Your task to perform on an android device: open app "Google Drive" (install if not already installed) Image 0: 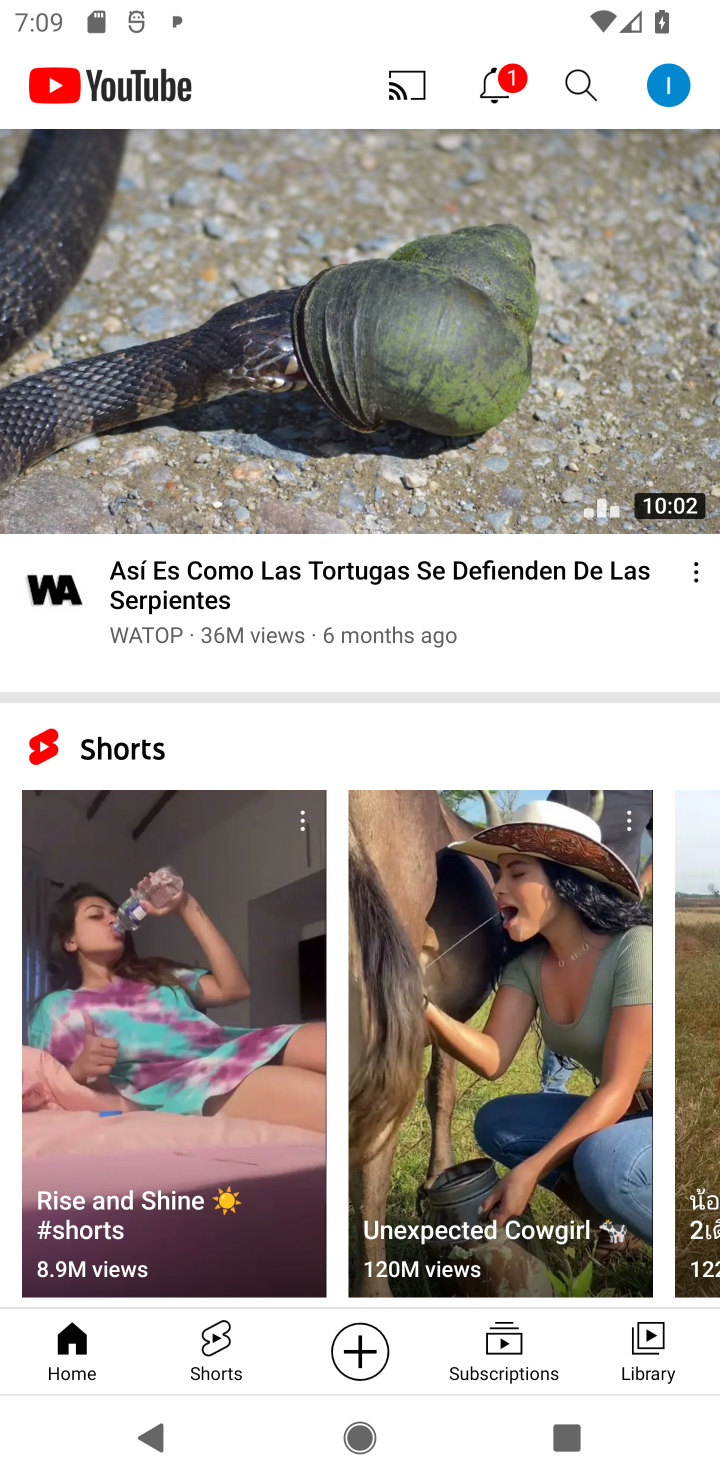
Step 0: press home button
Your task to perform on an android device: open app "Google Drive" (install if not already installed) Image 1: 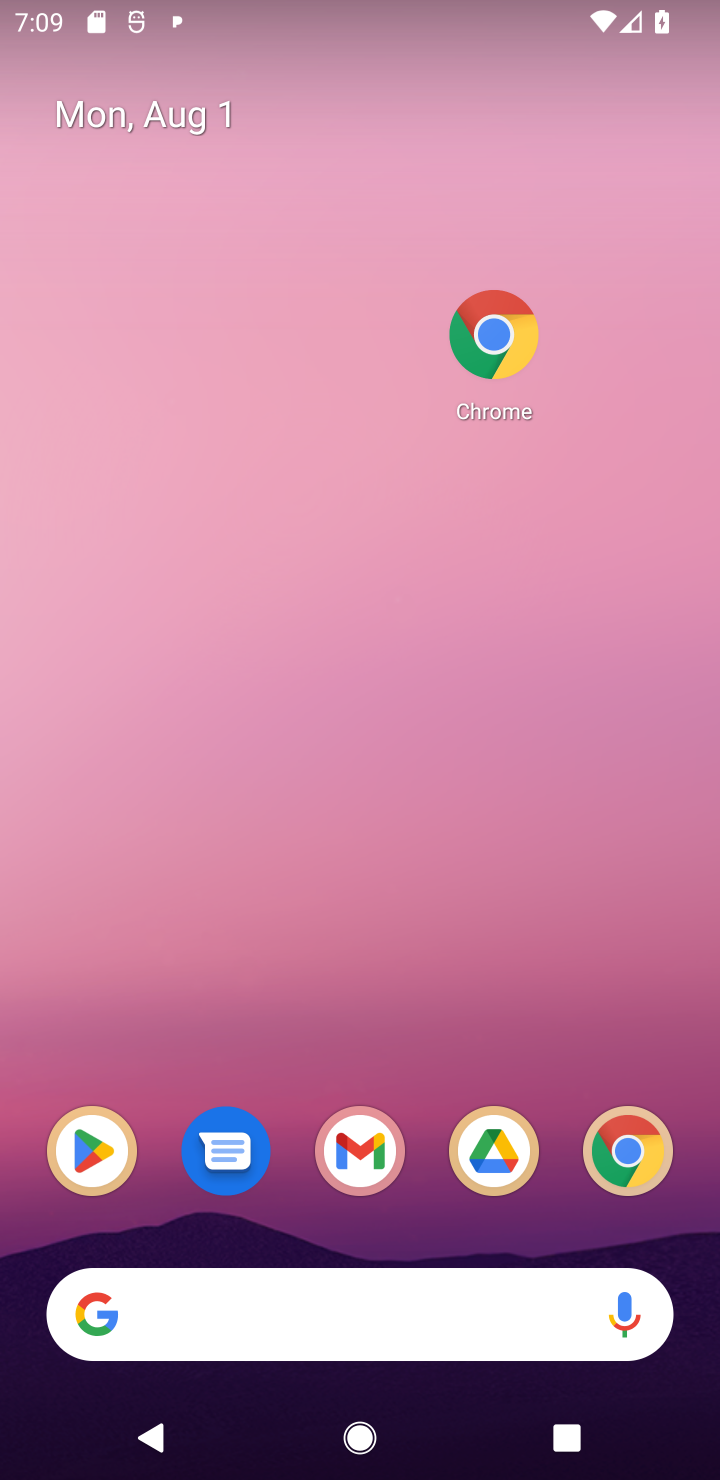
Step 1: click (375, 1215)
Your task to perform on an android device: open app "Google Drive" (install if not already installed) Image 2: 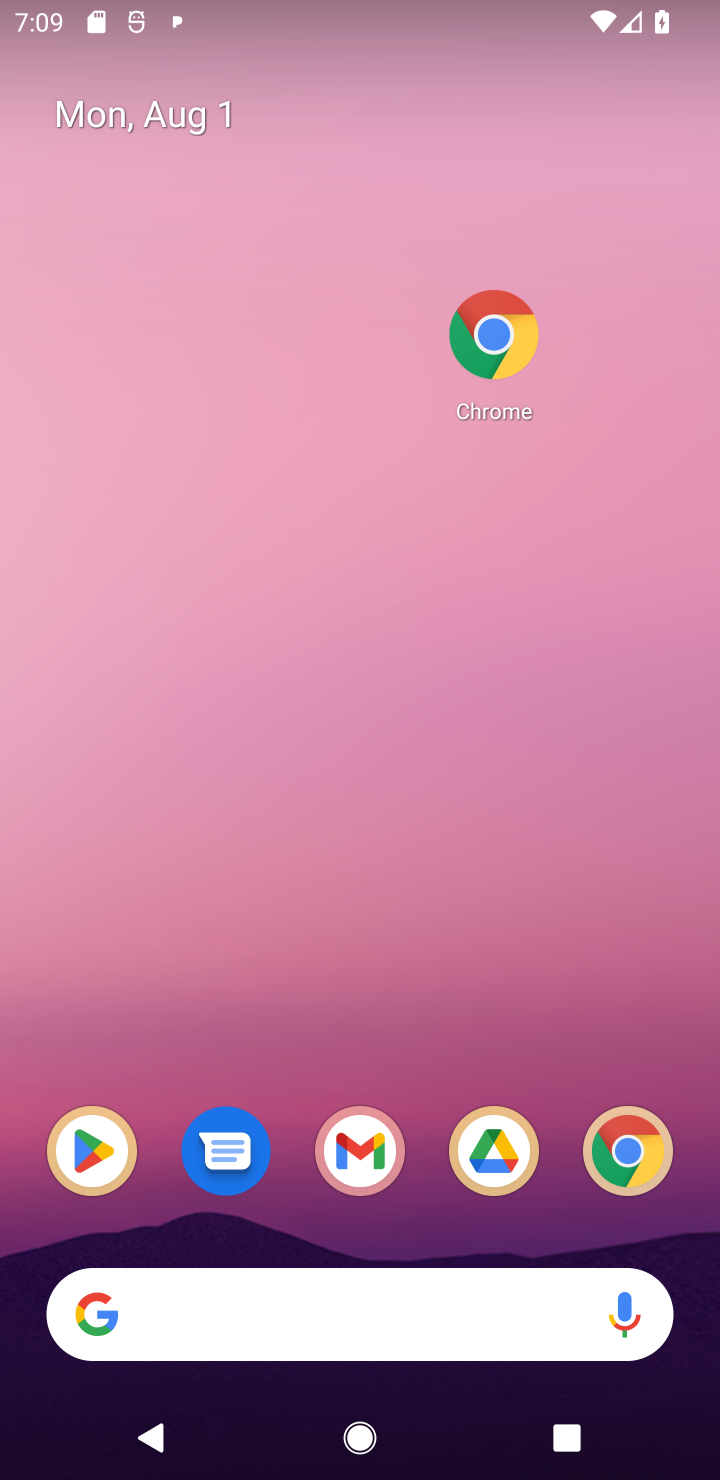
Step 2: click (492, 1157)
Your task to perform on an android device: open app "Google Drive" (install if not already installed) Image 3: 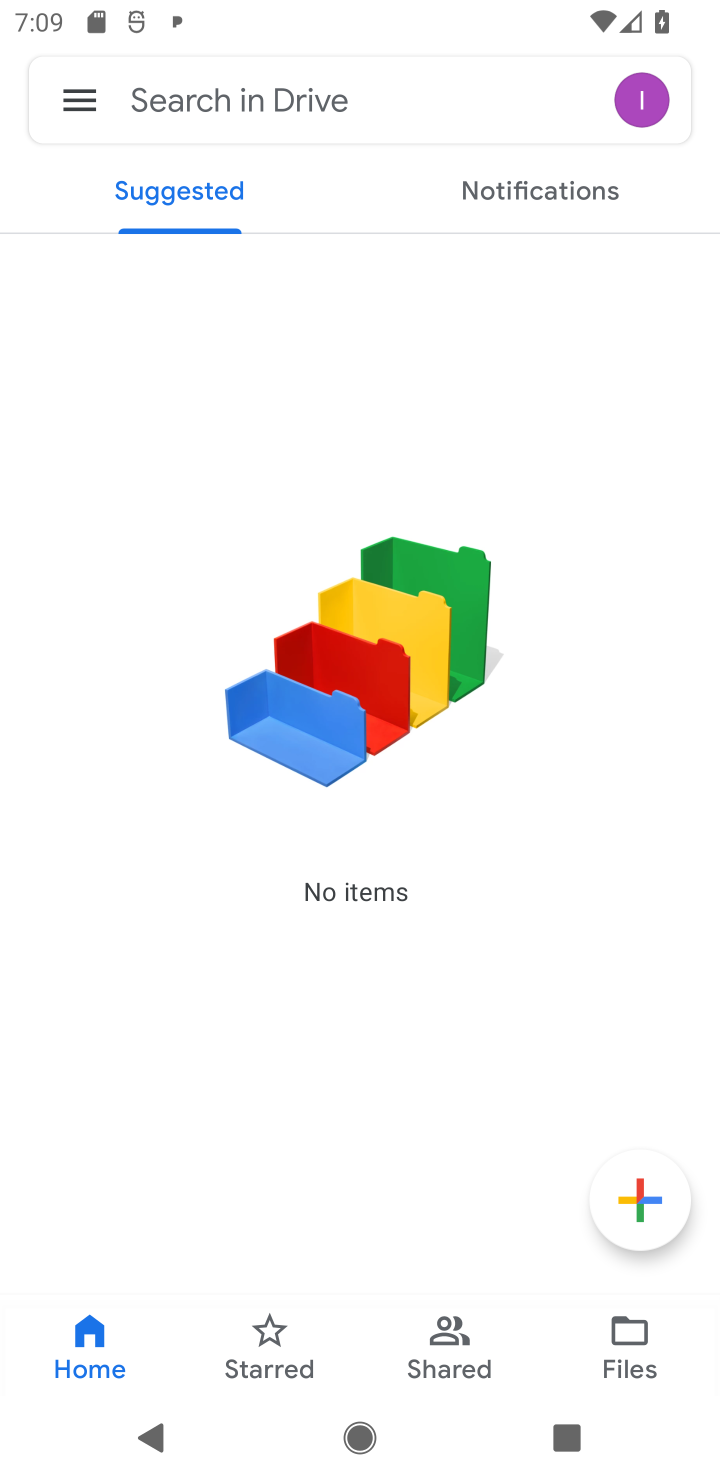
Step 3: task complete